Your task to perform on an android device: turn off location Image 0: 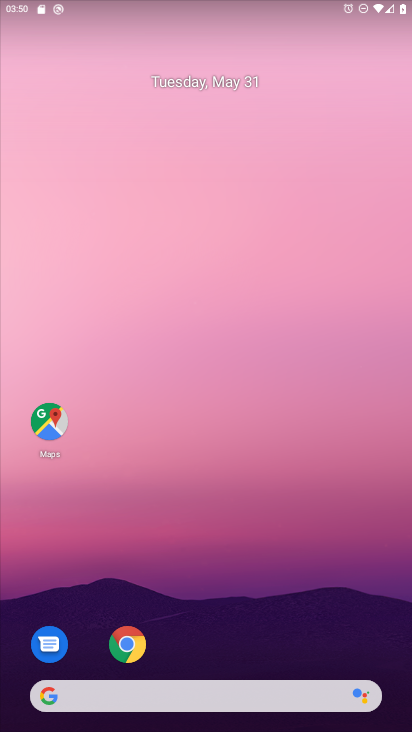
Step 0: drag from (282, 642) to (207, 209)
Your task to perform on an android device: turn off location Image 1: 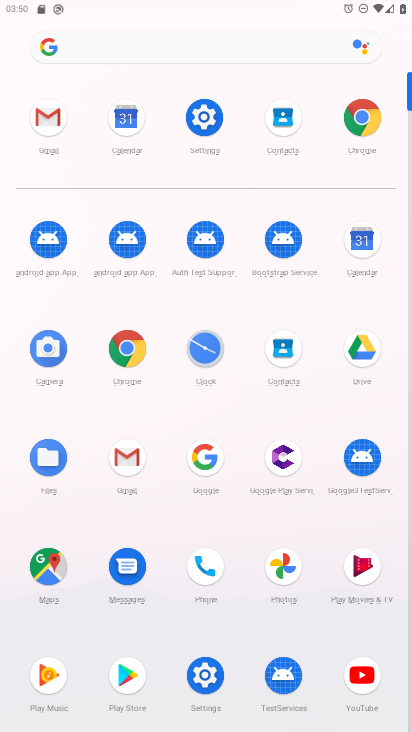
Step 1: click (209, 130)
Your task to perform on an android device: turn off location Image 2: 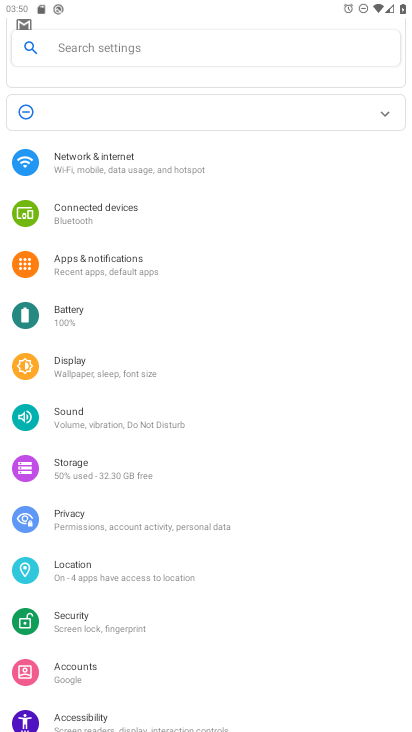
Step 2: click (138, 568)
Your task to perform on an android device: turn off location Image 3: 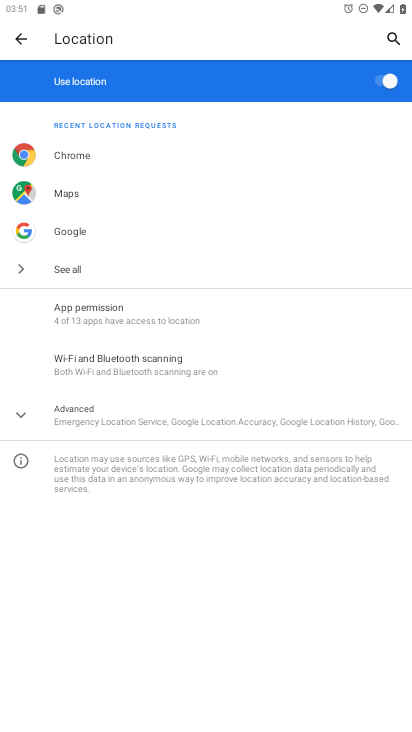
Step 3: click (380, 74)
Your task to perform on an android device: turn off location Image 4: 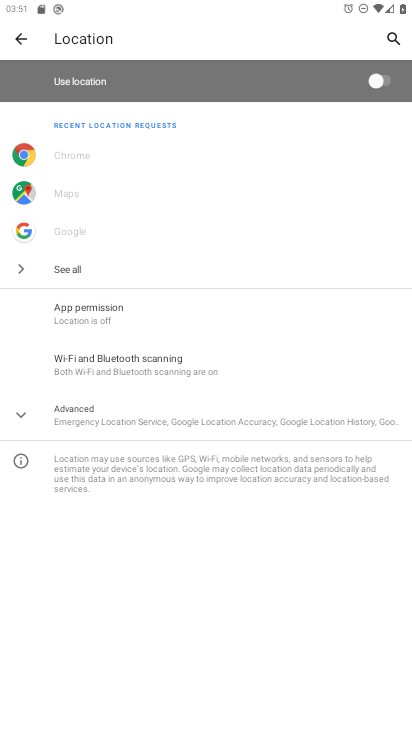
Step 4: task complete